Your task to perform on an android device: check android version Image 0: 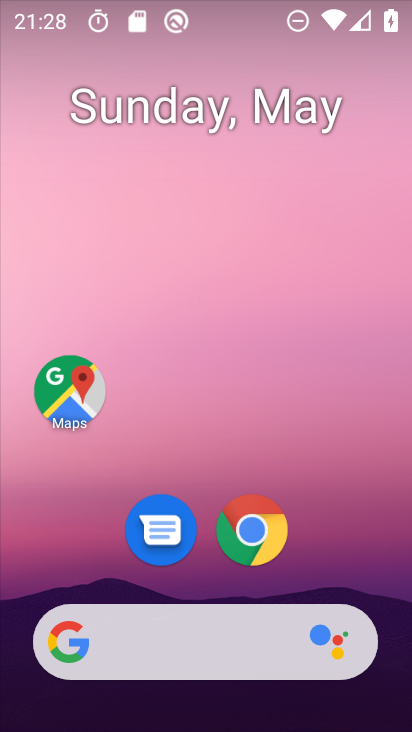
Step 0: drag from (246, 690) to (238, 30)
Your task to perform on an android device: check android version Image 1: 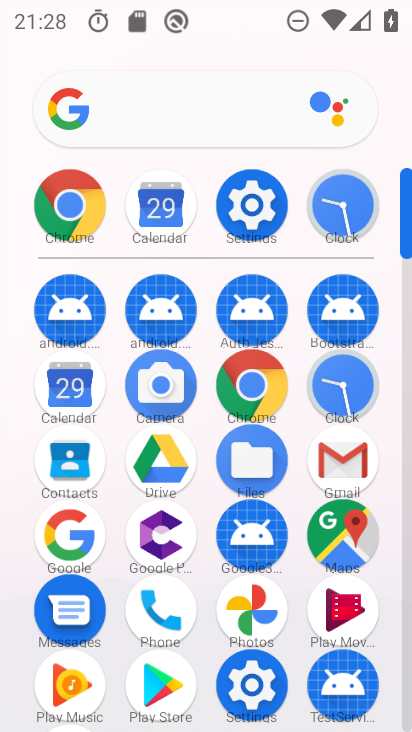
Step 1: click (245, 204)
Your task to perform on an android device: check android version Image 2: 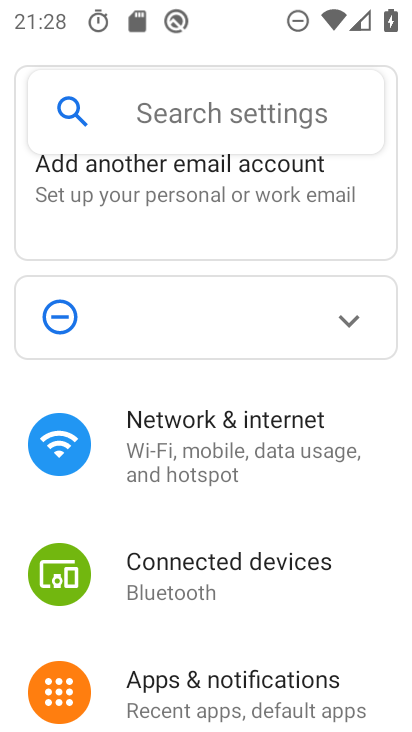
Step 2: click (188, 113)
Your task to perform on an android device: check android version Image 3: 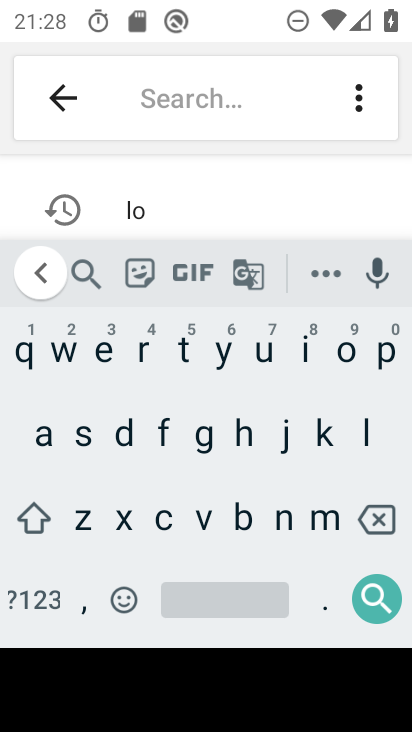
Step 3: click (42, 438)
Your task to perform on an android device: check android version Image 4: 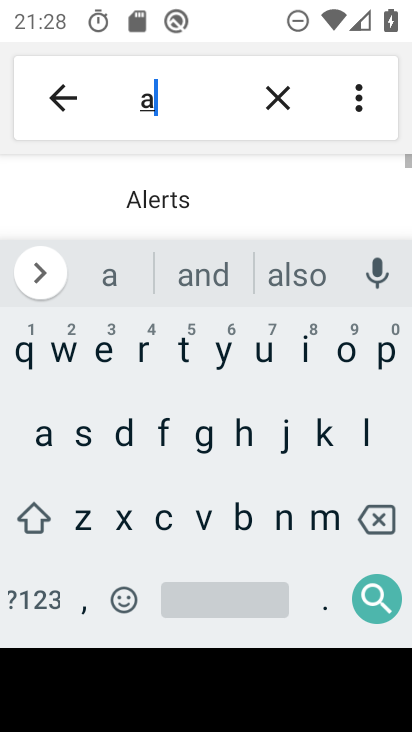
Step 4: click (284, 519)
Your task to perform on an android device: check android version Image 5: 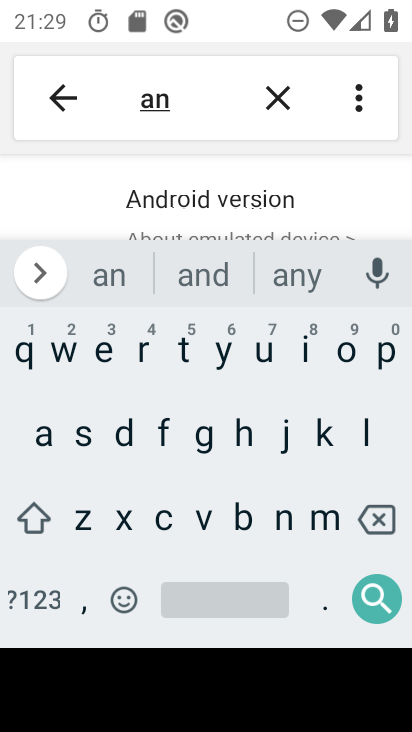
Step 5: click (172, 207)
Your task to perform on an android device: check android version Image 6: 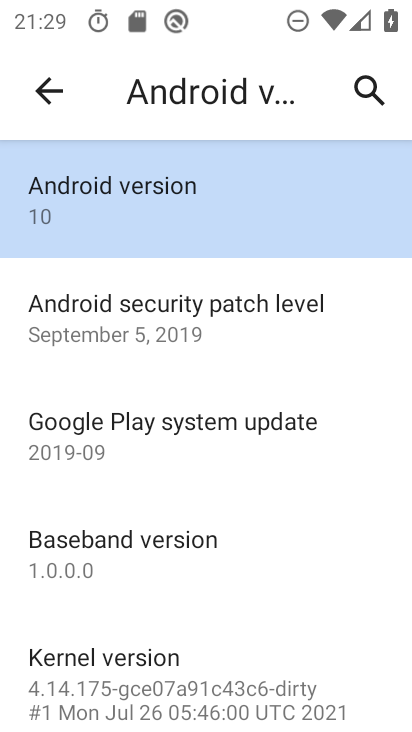
Step 6: task complete